Your task to perform on an android device: Open my contact list Image 0: 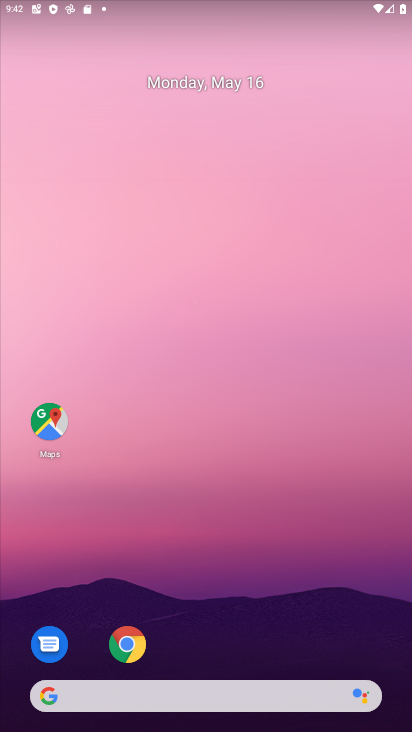
Step 0: drag from (191, 724) to (191, 72)
Your task to perform on an android device: Open my contact list Image 1: 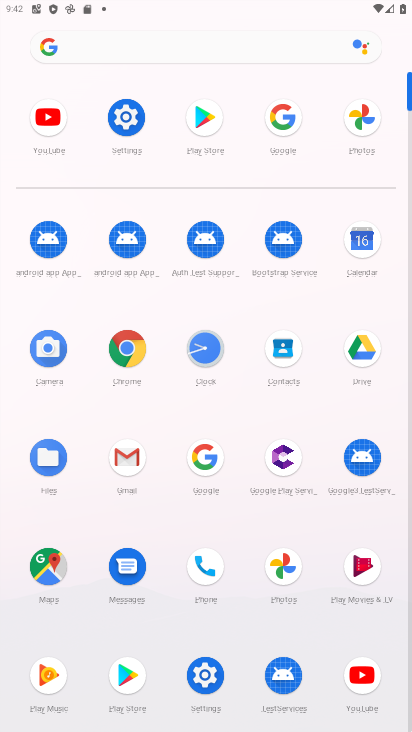
Step 1: click (279, 348)
Your task to perform on an android device: Open my contact list Image 2: 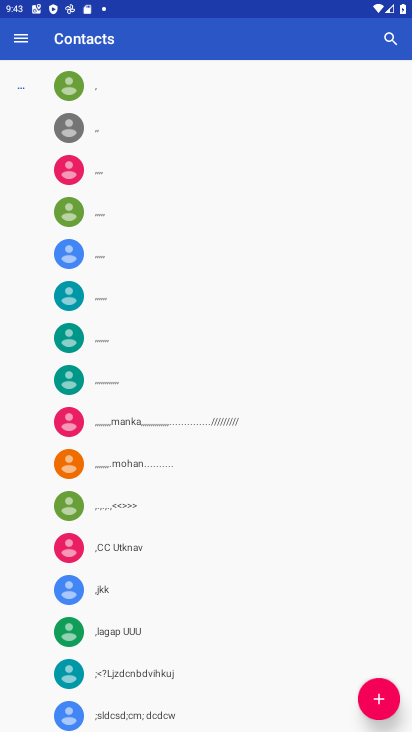
Step 2: task complete